Your task to perform on an android device: What's the weather today? Image 0: 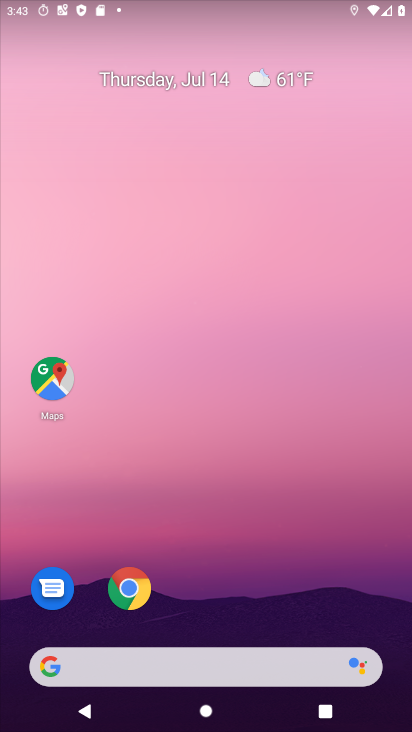
Step 0: drag from (181, 670) to (296, 312)
Your task to perform on an android device: What's the weather today? Image 1: 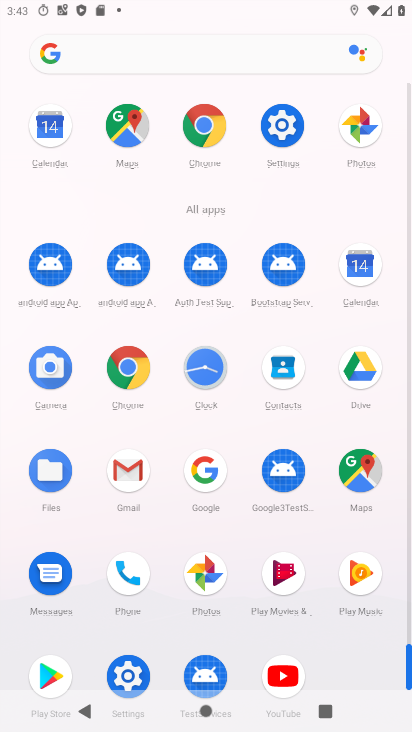
Step 1: click (202, 468)
Your task to perform on an android device: What's the weather today? Image 2: 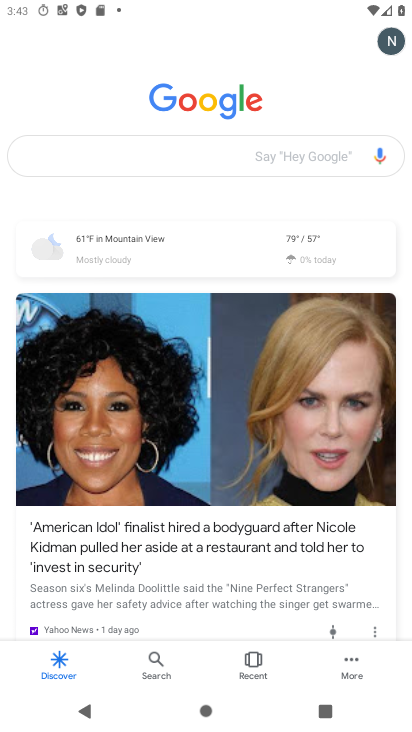
Step 2: click (222, 247)
Your task to perform on an android device: What's the weather today? Image 3: 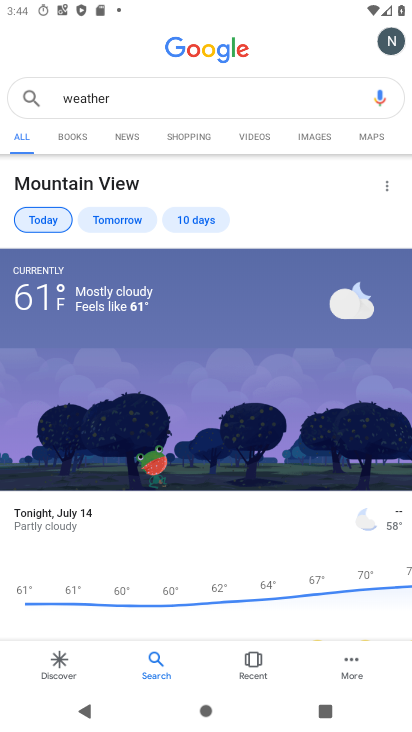
Step 3: task complete